Your task to perform on an android device: What's on my calendar today? Image 0: 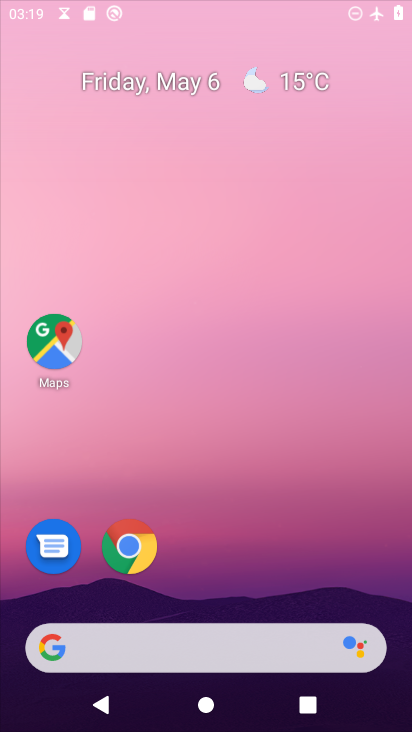
Step 0: click (284, 231)
Your task to perform on an android device: What's on my calendar today? Image 1: 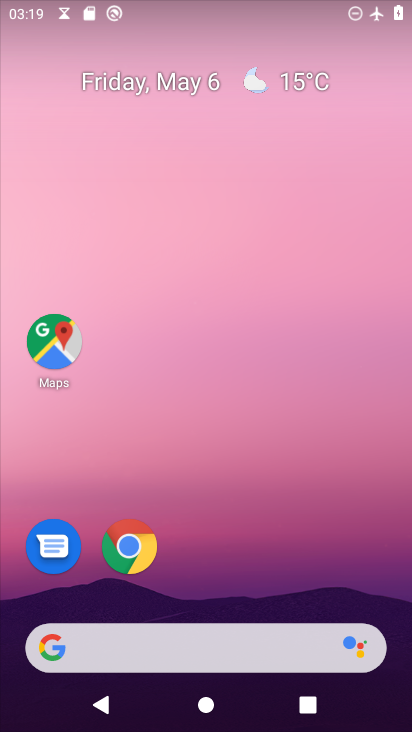
Step 1: click (159, 85)
Your task to perform on an android device: What's on my calendar today? Image 2: 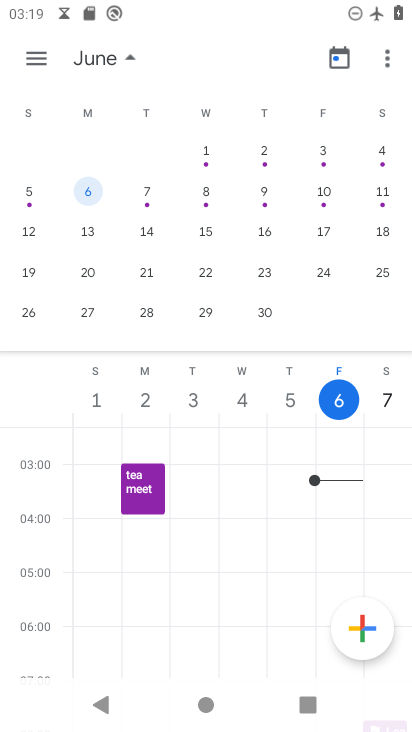
Step 2: click (42, 60)
Your task to perform on an android device: What's on my calendar today? Image 3: 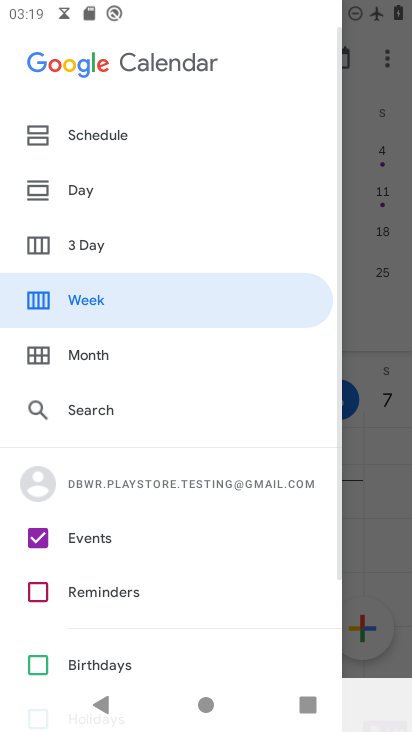
Step 3: click (112, 136)
Your task to perform on an android device: What's on my calendar today? Image 4: 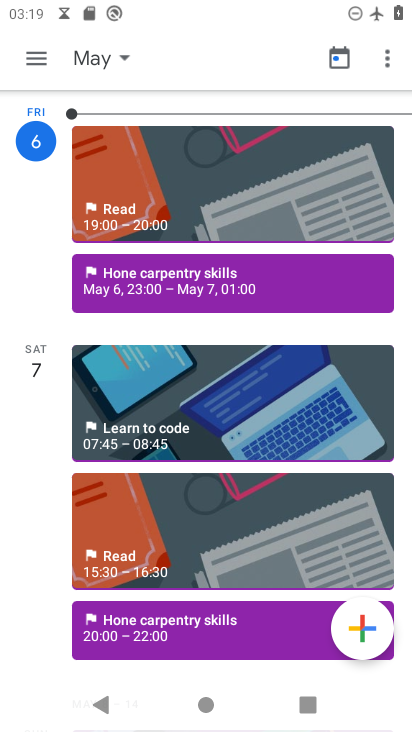
Step 4: click (39, 59)
Your task to perform on an android device: What's on my calendar today? Image 5: 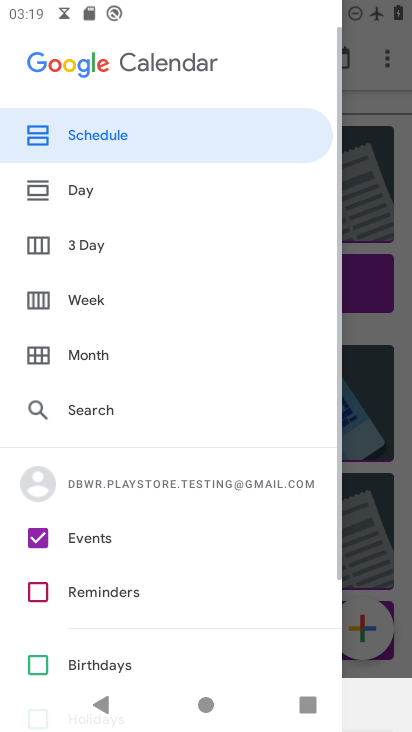
Step 5: click (45, 585)
Your task to perform on an android device: What's on my calendar today? Image 6: 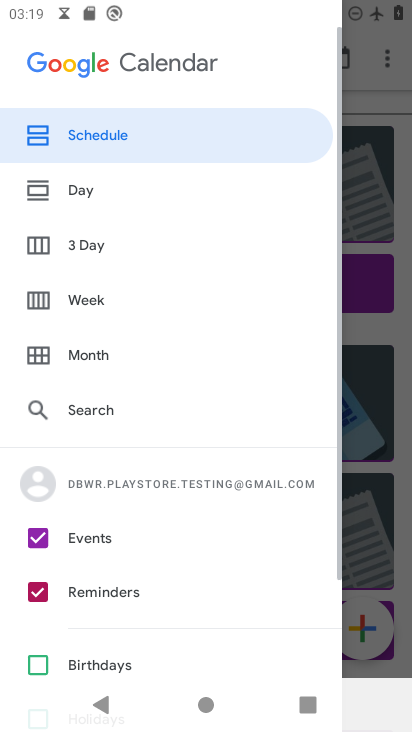
Step 6: click (37, 669)
Your task to perform on an android device: What's on my calendar today? Image 7: 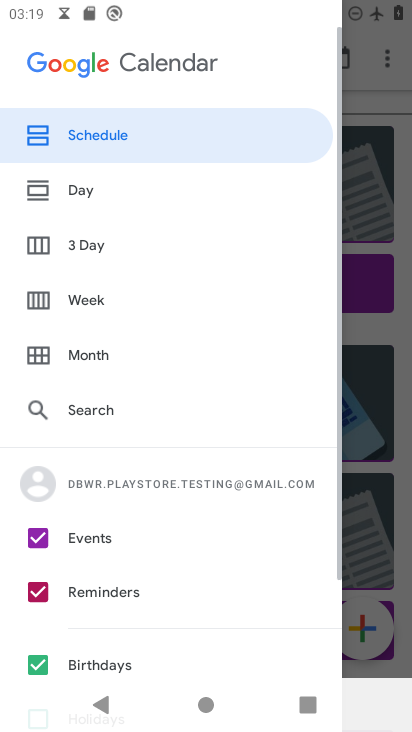
Step 7: drag from (185, 601) to (209, 228)
Your task to perform on an android device: What's on my calendar today? Image 8: 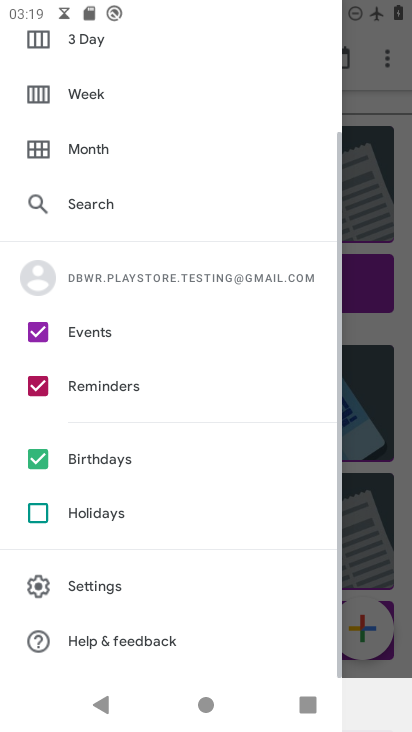
Step 8: click (33, 516)
Your task to perform on an android device: What's on my calendar today? Image 9: 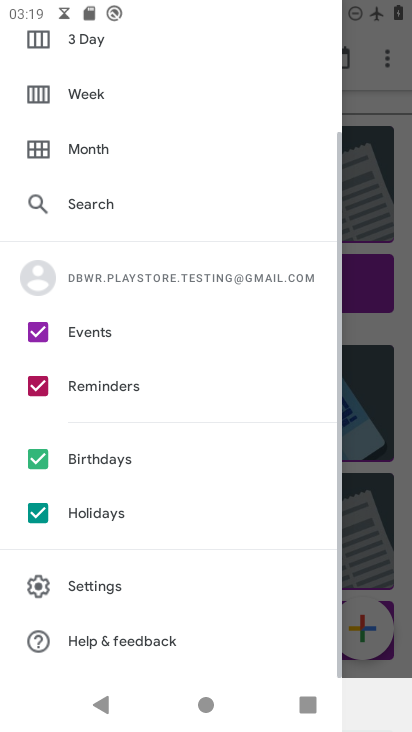
Step 9: click (384, 149)
Your task to perform on an android device: What's on my calendar today? Image 10: 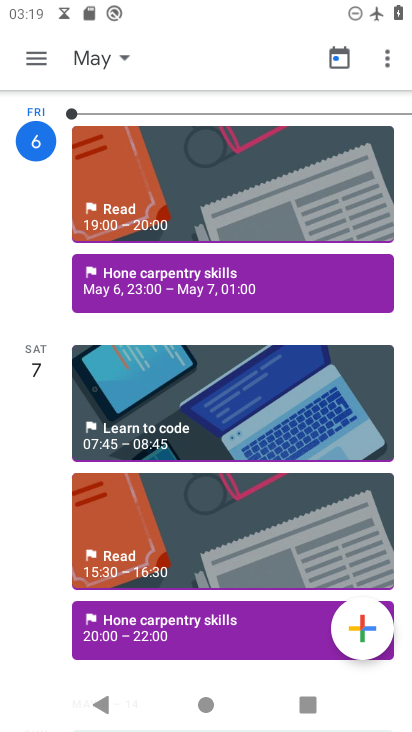
Step 10: task complete